Your task to perform on an android device: check battery use Image 0: 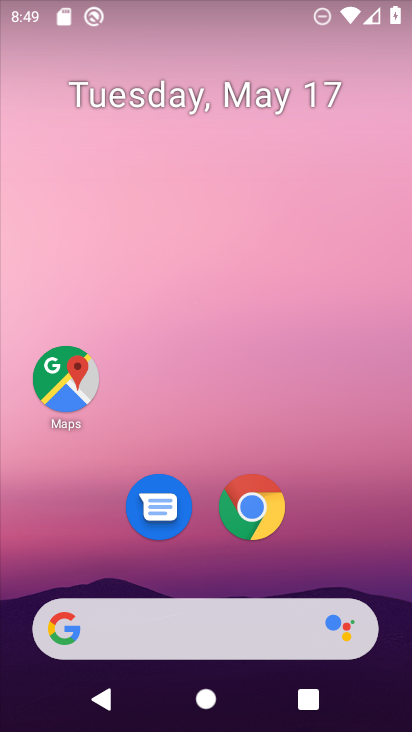
Step 0: drag from (392, 559) to (407, 306)
Your task to perform on an android device: check battery use Image 1: 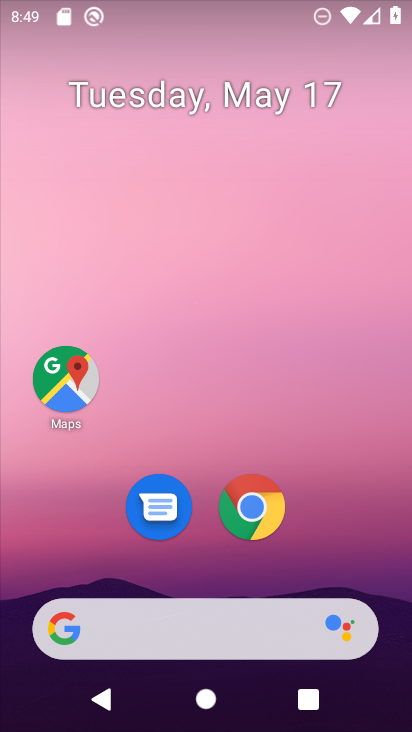
Step 1: drag from (372, 568) to (392, 6)
Your task to perform on an android device: check battery use Image 2: 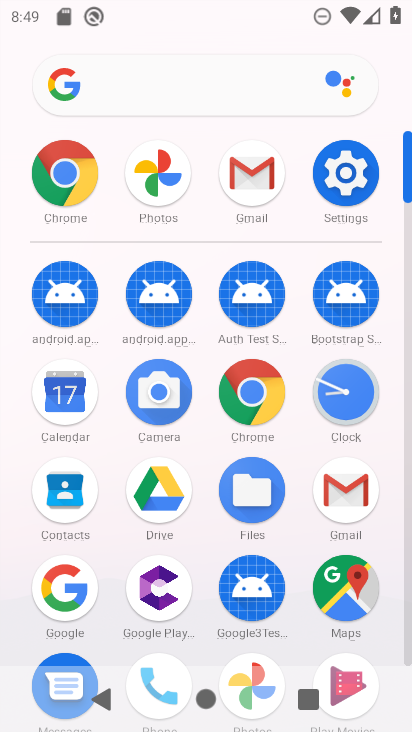
Step 2: click (349, 170)
Your task to perform on an android device: check battery use Image 3: 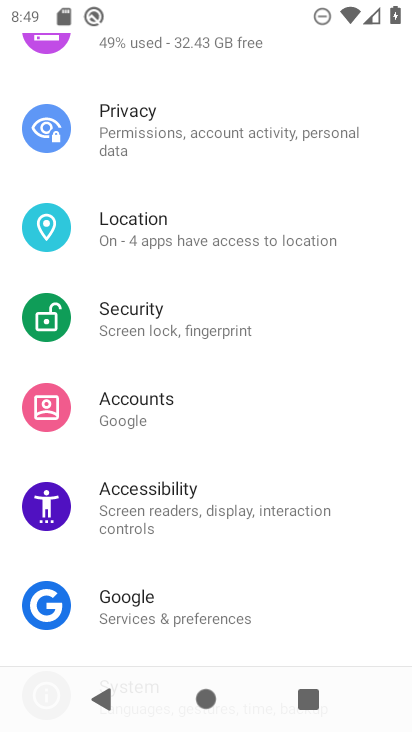
Step 3: drag from (275, 203) to (265, 497)
Your task to perform on an android device: check battery use Image 4: 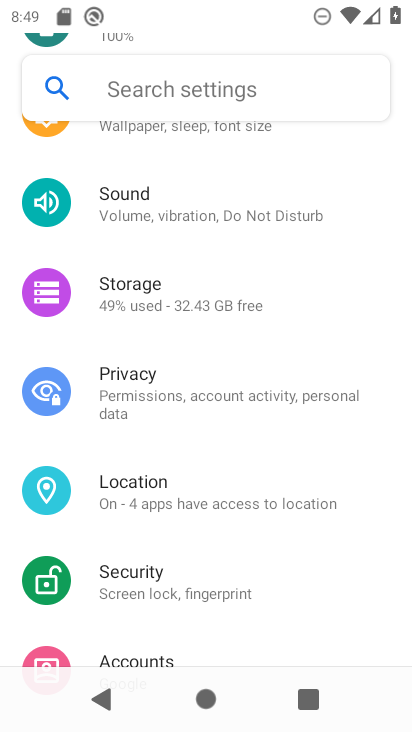
Step 4: drag from (198, 200) to (196, 433)
Your task to perform on an android device: check battery use Image 5: 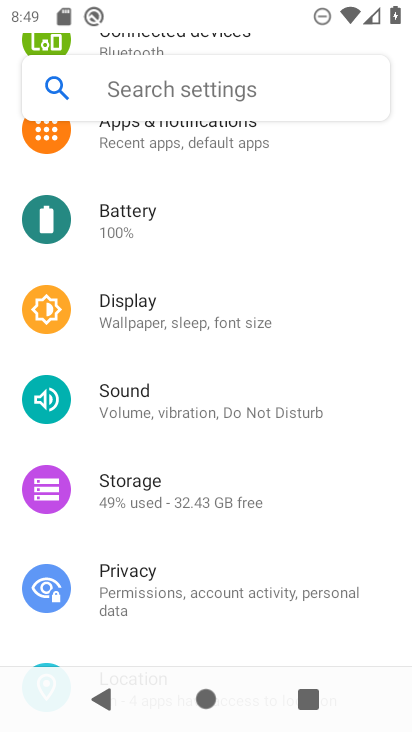
Step 5: click (101, 229)
Your task to perform on an android device: check battery use Image 6: 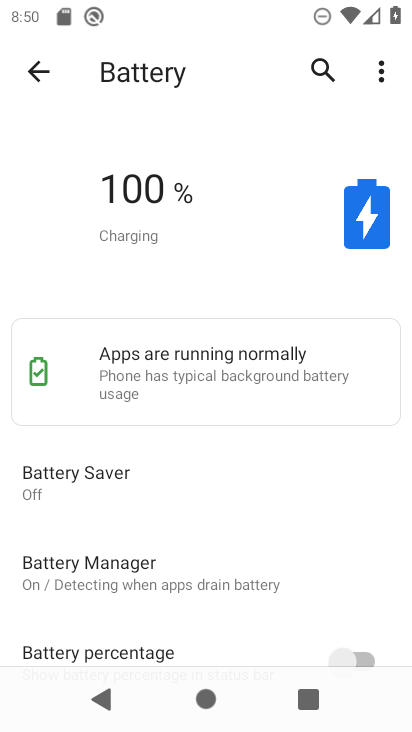
Step 6: click (379, 74)
Your task to perform on an android device: check battery use Image 7: 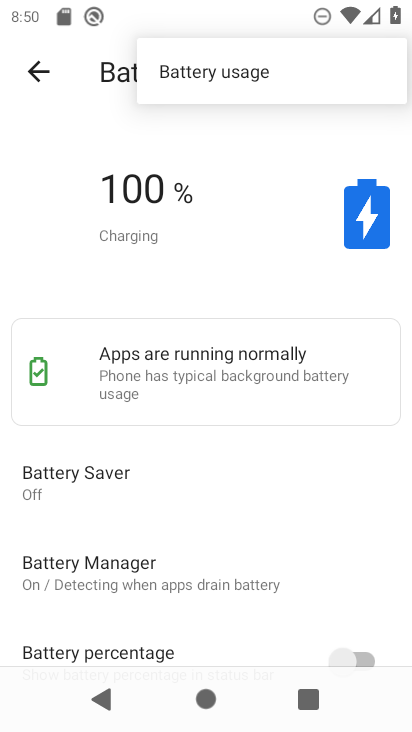
Step 7: click (230, 74)
Your task to perform on an android device: check battery use Image 8: 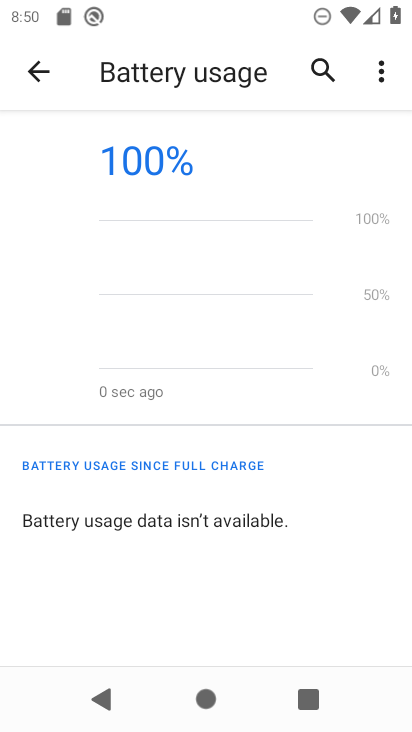
Step 8: task complete